Your task to perform on an android device: check data usage Image 0: 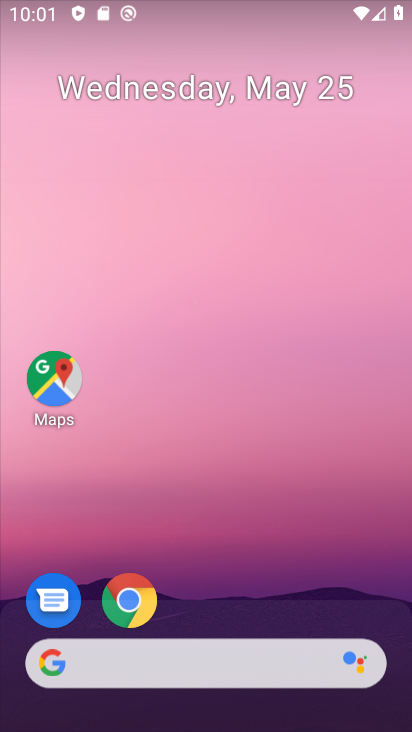
Step 0: drag from (201, 609) to (307, 154)
Your task to perform on an android device: check data usage Image 1: 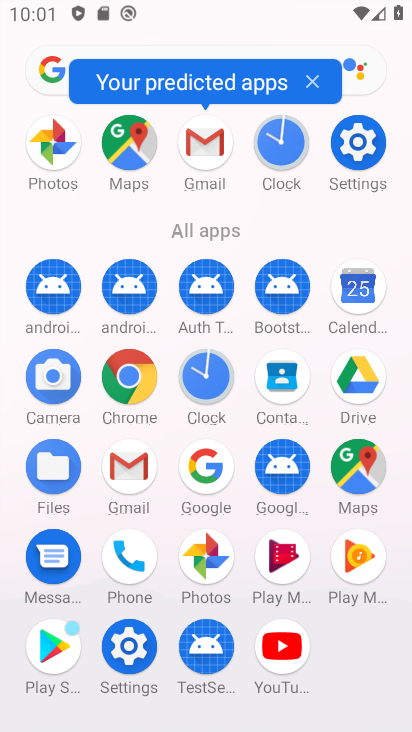
Step 1: drag from (198, 642) to (259, 407)
Your task to perform on an android device: check data usage Image 2: 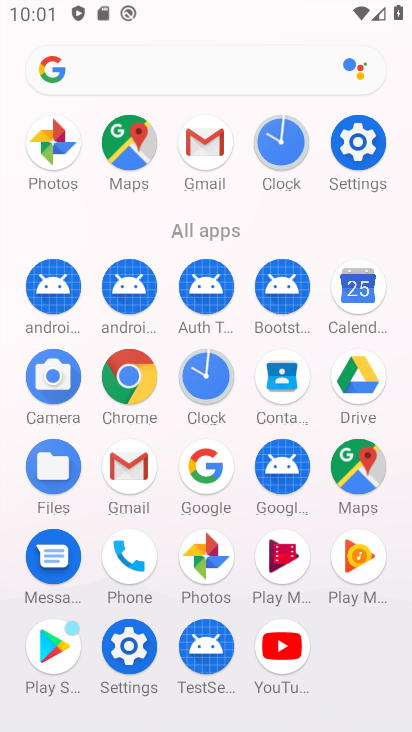
Step 2: click (130, 649)
Your task to perform on an android device: check data usage Image 3: 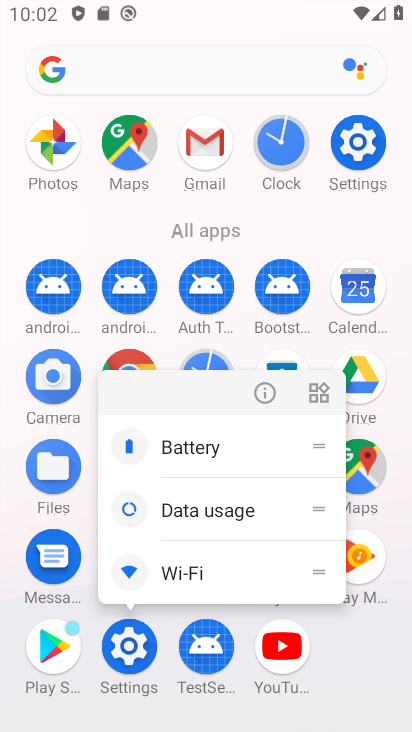
Step 3: click (135, 652)
Your task to perform on an android device: check data usage Image 4: 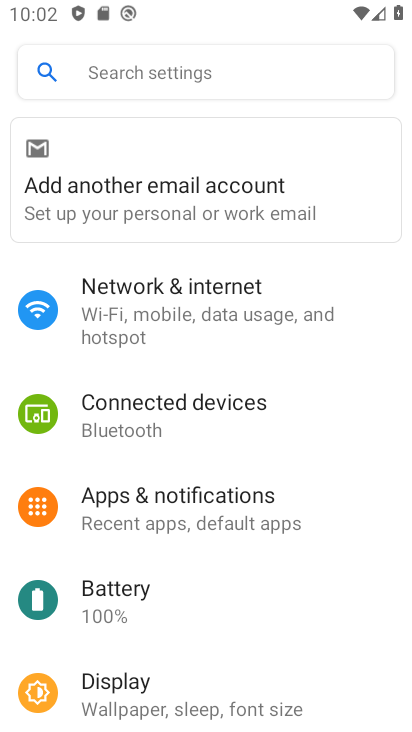
Step 4: drag from (208, 663) to (257, 465)
Your task to perform on an android device: check data usage Image 5: 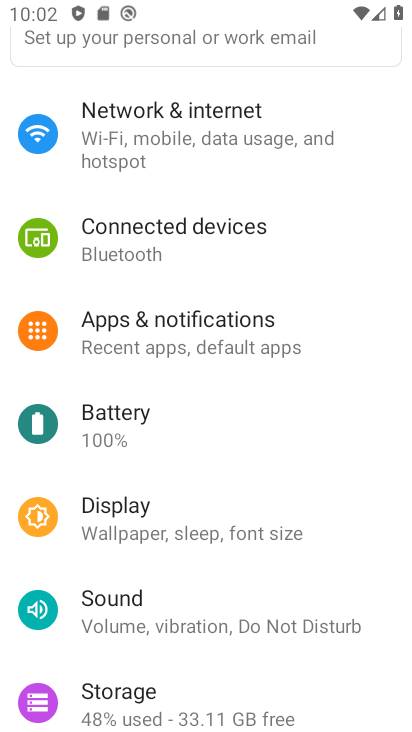
Step 5: click (264, 165)
Your task to perform on an android device: check data usage Image 6: 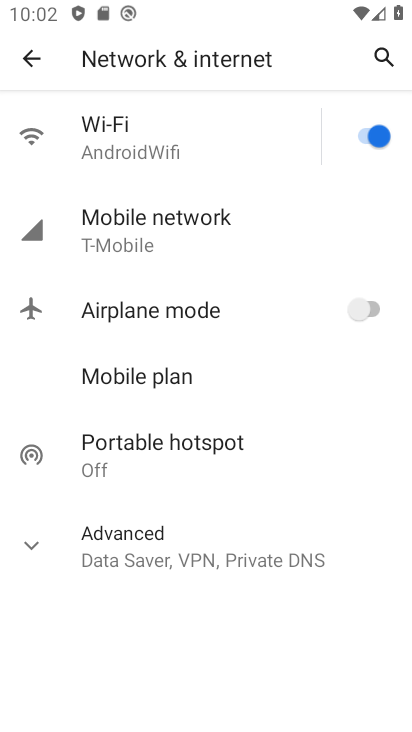
Step 6: click (196, 242)
Your task to perform on an android device: check data usage Image 7: 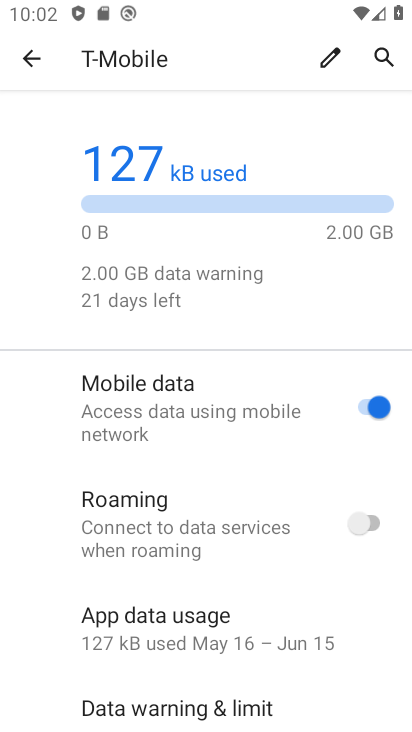
Step 7: drag from (192, 615) to (238, 445)
Your task to perform on an android device: check data usage Image 8: 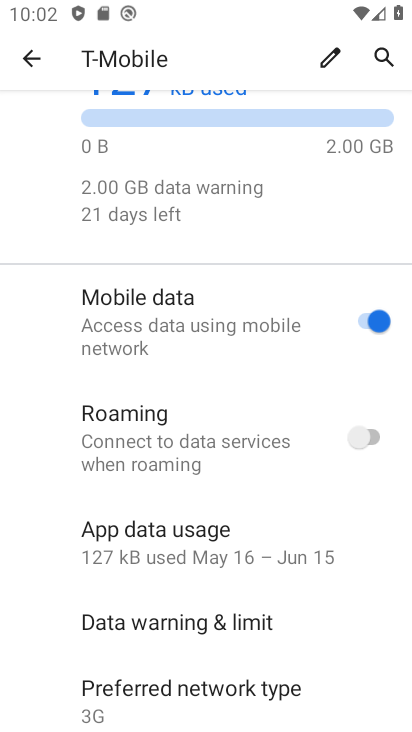
Step 8: click (192, 551)
Your task to perform on an android device: check data usage Image 9: 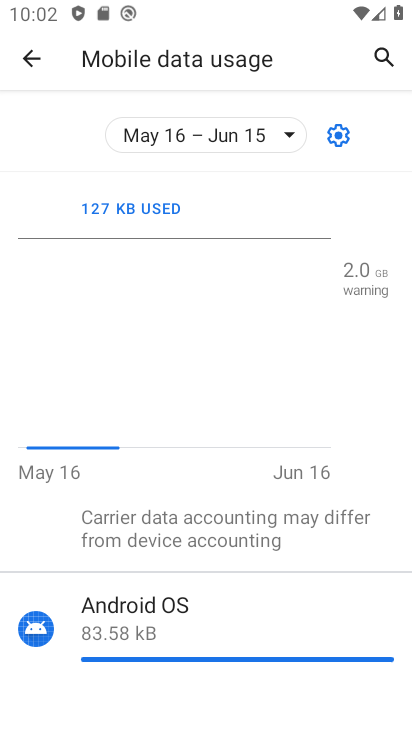
Step 9: task complete